Your task to perform on an android device: turn on the 12-hour format for clock Image 0: 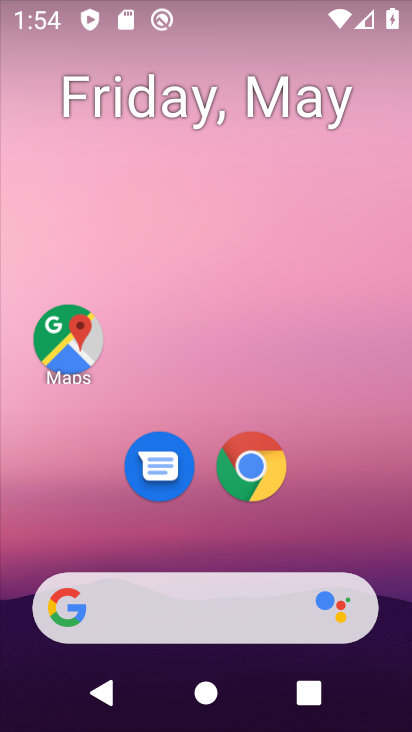
Step 0: drag from (323, 496) to (347, 150)
Your task to perform on an android device: turn on the 12-hour format for clock Image 1: 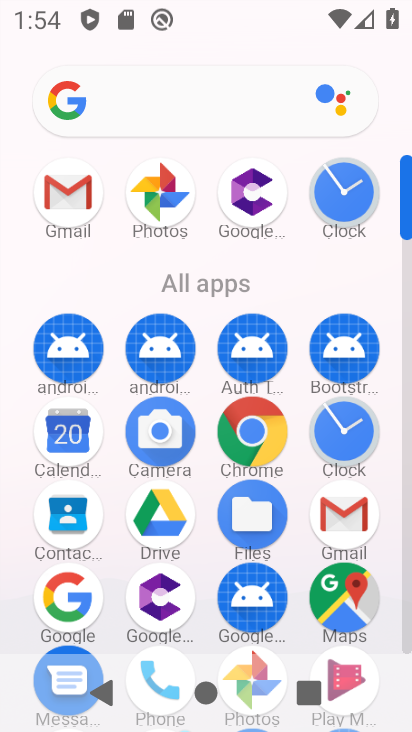
Step 1: click (347, 189)
Your task to perform on an android device: turn on the 12-hour format for clock Image 2: 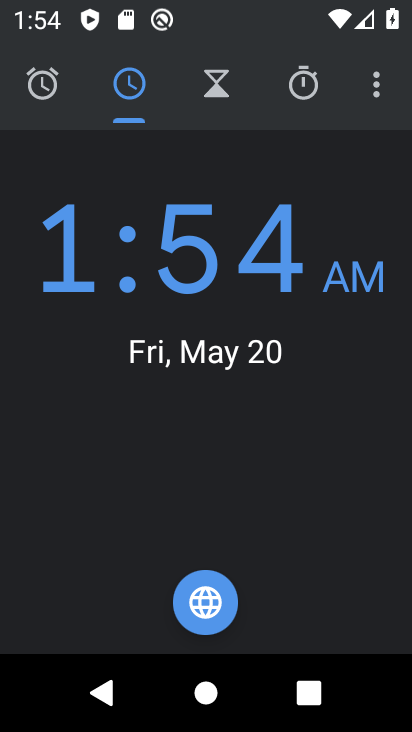
Step 2: click (370, 84)
Your task to perform on an android device: turn on the 12-hour format for clock Image 3: 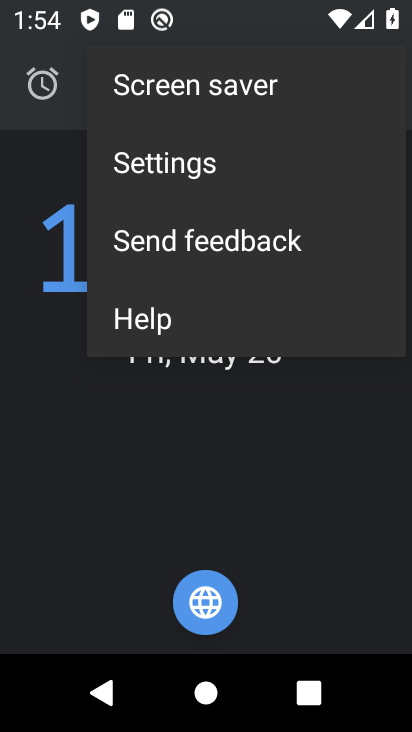
Step 3: click (192, 165)
Your task to perform on an android device: turn on the 12-hour format for clock Image 4: 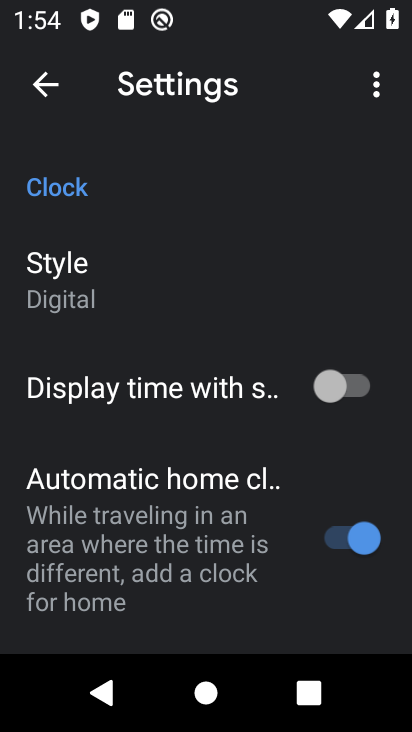
Step 4: drag from (228, 541) to (286, 179)
Your task to perform on an android device: turn on the 12-hour format for clock Image 5: 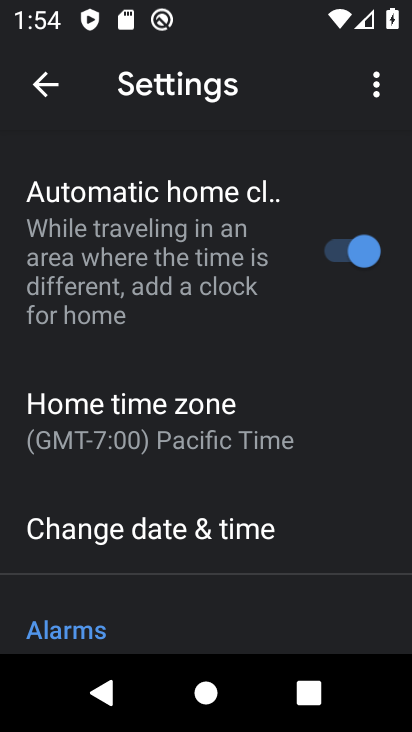
Step 5: click (208, 529)
Your task to perform on an android device: turn on the 12-hour format for clock Image 6: 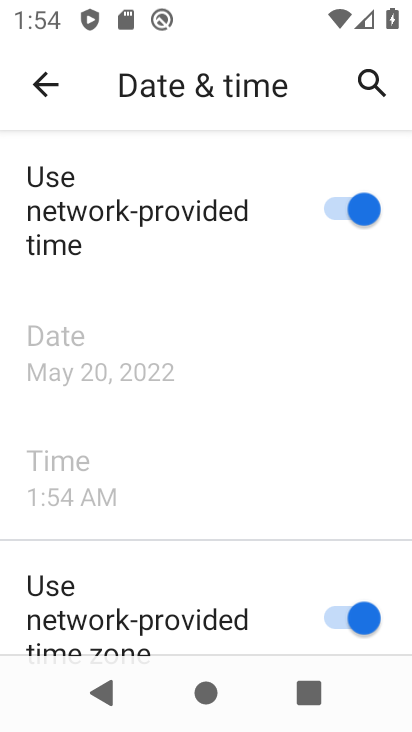
Step 6: task complete